Your task to perform on an android device: Open Yahoo.com Image 0: 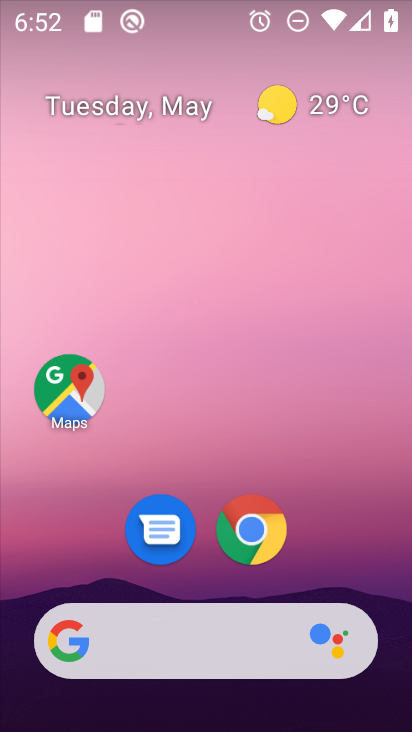
Step 0: drag from (403, 644) to (270, 26)
Your task to perform on an android device: Open Yahoo.com Image 1: 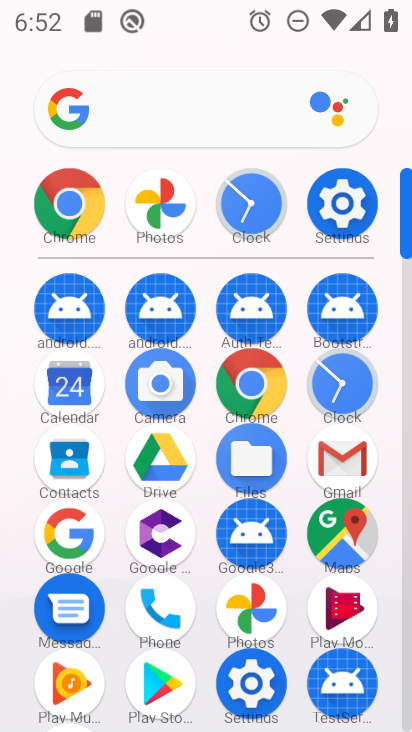
Step 1: click (97, 202)
Your task to perform on an android device: Open Yahoo.com Image 2: 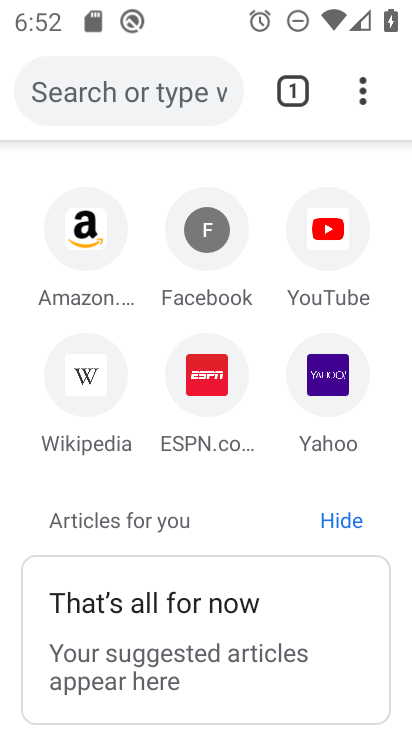
Step 2: click (347, 372)
Your task to perform on an android device: Open Yahoo.com Image 3: 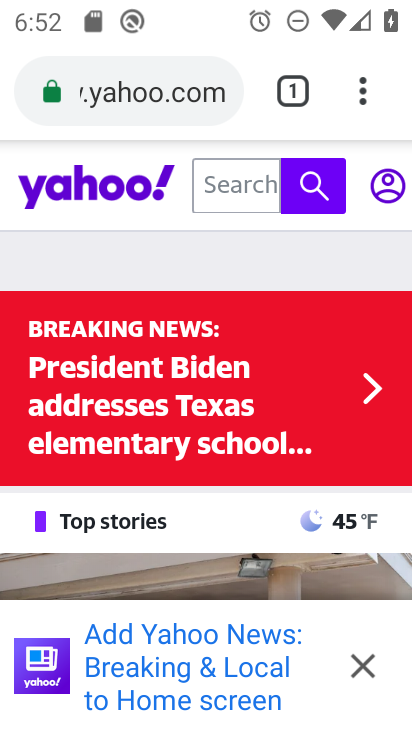
Step 3: task complete